Your task to perform on an android device: Open Maps and search for coffee Image 0: 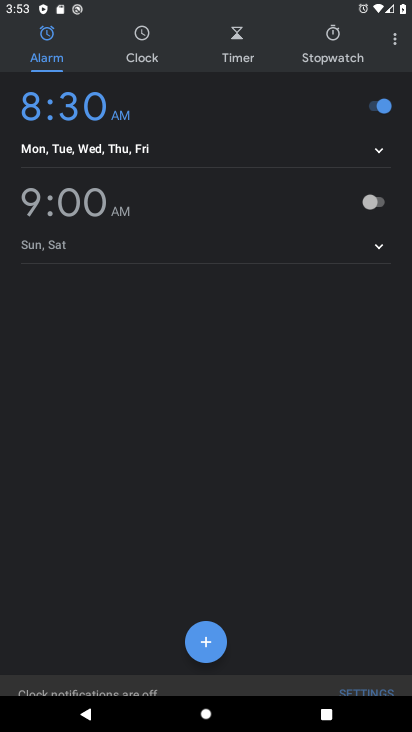
Step 0: press home button
Your task to perform on an android device: Open Maps and search for coffee Image 1: 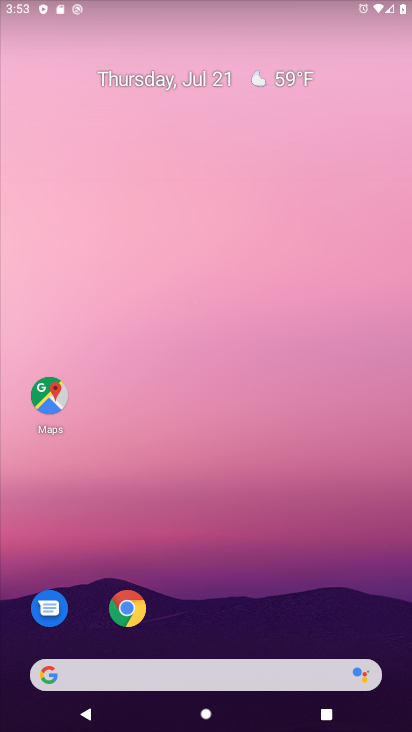
Step 1: drag from (312, 563) to (317, 11)
Your task to perform on an android device: Open Maps and search for coffee Image 2: 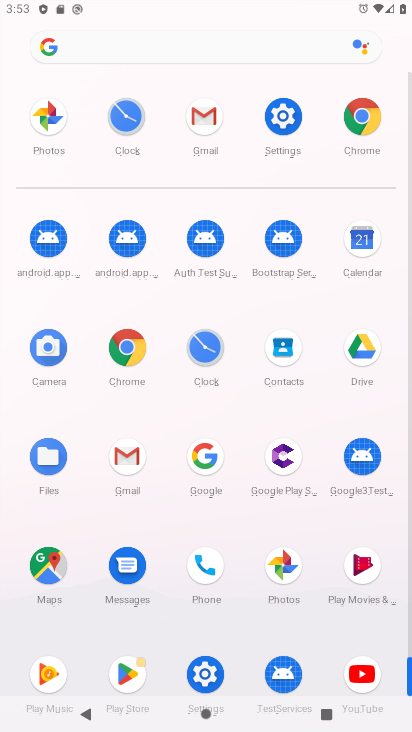
Step 2: click (52, 571)
Your task to perform on an android device: Open Maps and search for coffee Image 3: 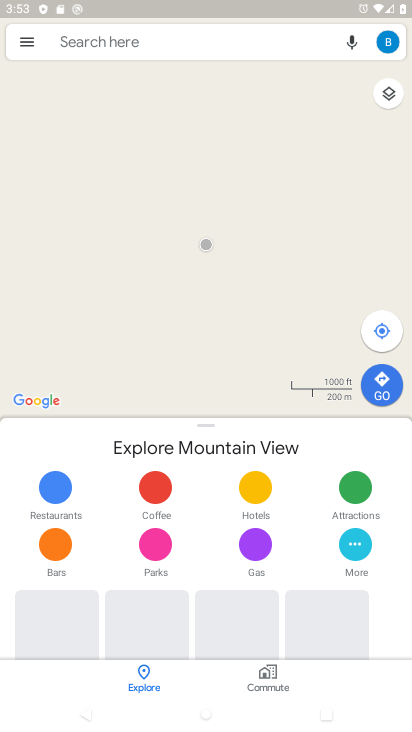
Step 3: click (171, 54)
Your task to perform on an android device: Open Maps and search for coffee Image 4: 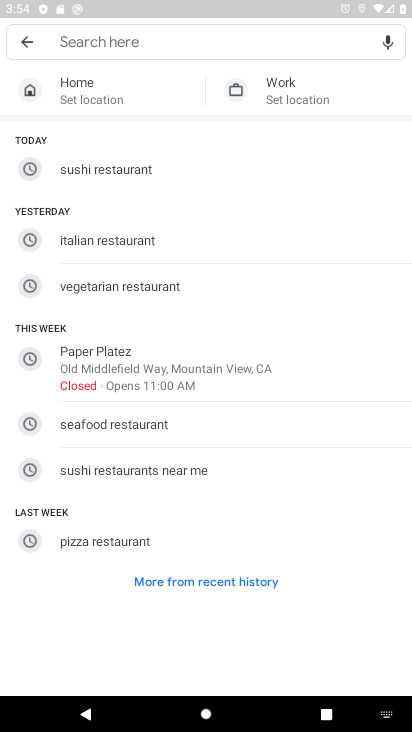
Step 4: type "coffee"
Your task to perform on an android device: Open Maps and search for coffee Image 5: 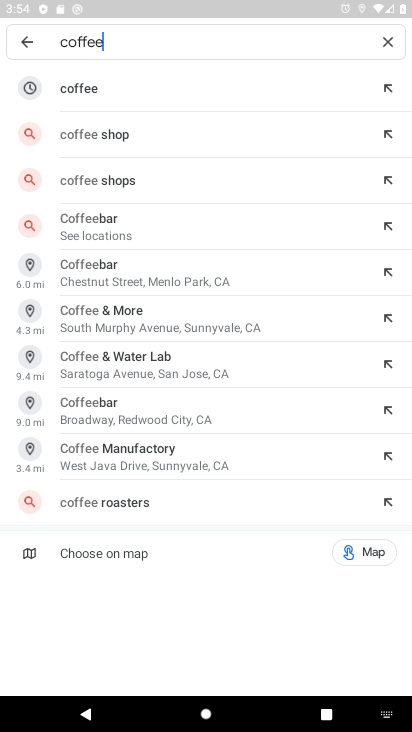
Step 5: click (240, 94)
Your task to perform on an android device: Open Maps and search for coffee Image 6: 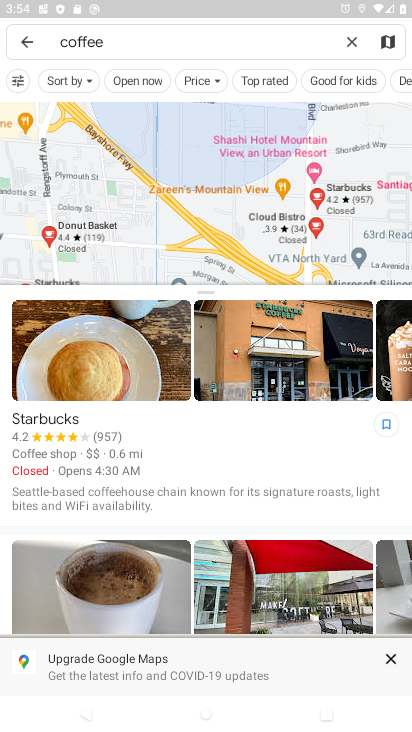
Step 6: task complete